Your task to perform on an android device: Go to CNN.com Image 0: 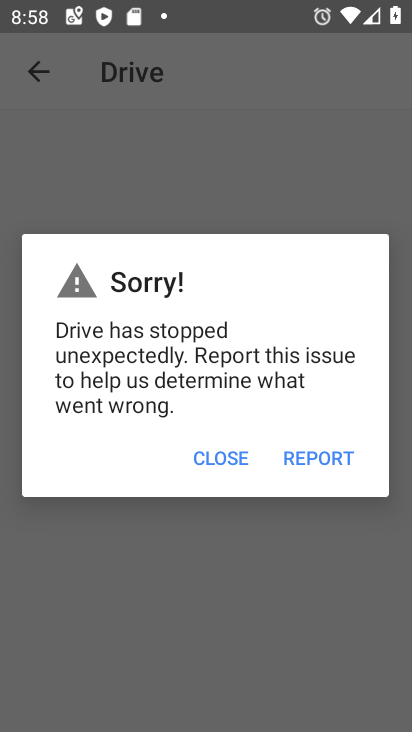
Step 0: press home button
Your task to perform on an android device: Go to CNN.com Image 1: 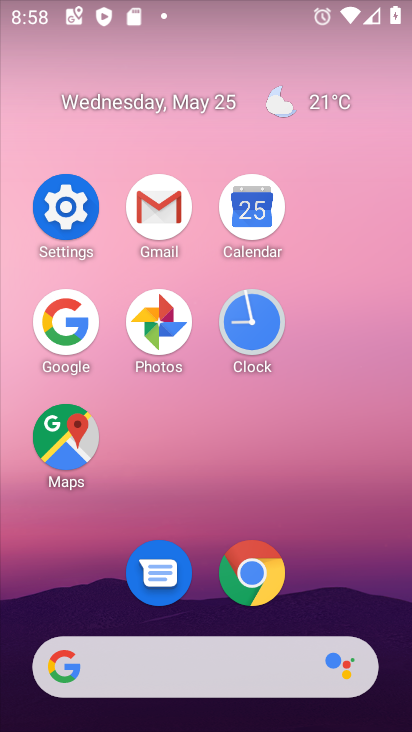
Step 1: click (234, 580)
Your task to perform on an android device: Go to CNN.com Image 2: 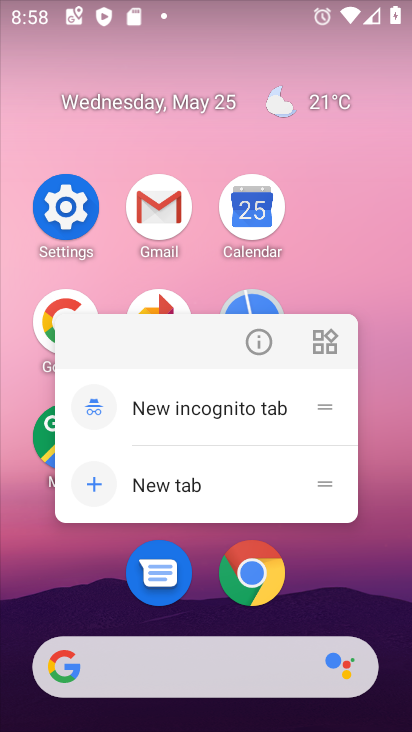
Step 2: click (236, 580)
Your task to perform on an android device: Go to CNN.com Image 3: 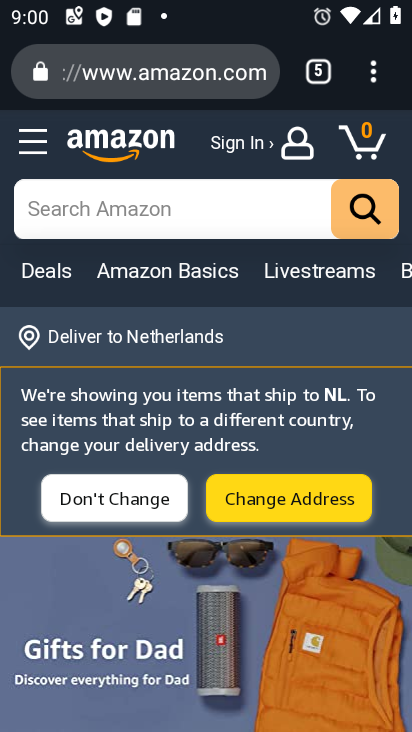
Step 3: click (307, 74)
Your task to perform on an android device: Go to CNN.com Image 4: 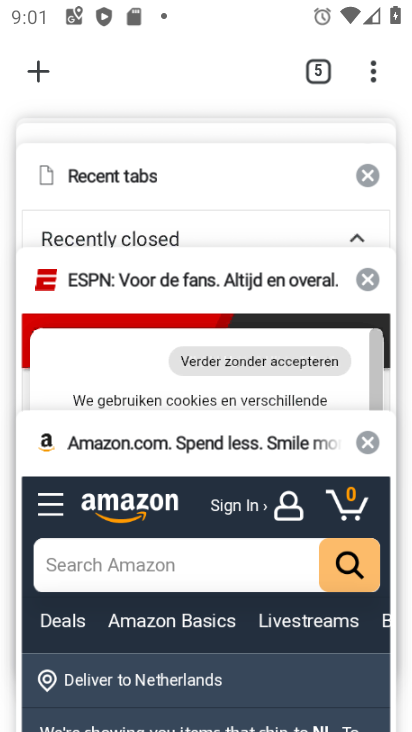
Step 4: drag from (148, 649) to (132, 327)
Your task to perform on an android device: Go to CNN.com Image 5: 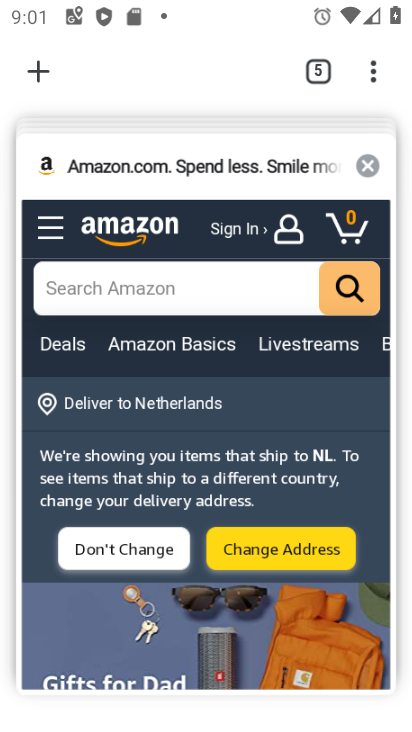
Step 5: drag from (173, 250) to (158, 638)
Your task to perform on an android device: Go to CNN.com Image 6: 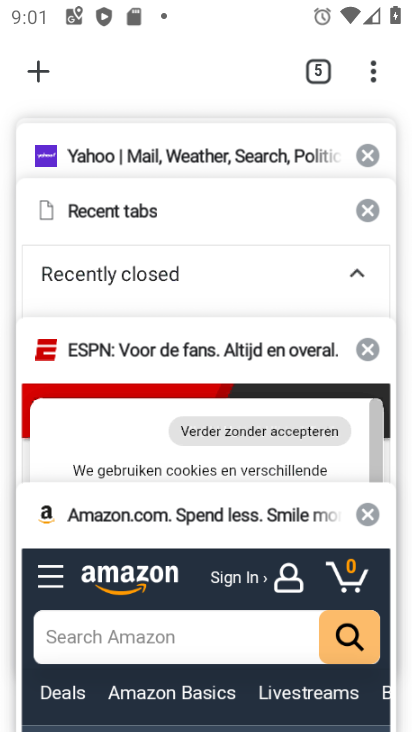
Step 6: drag from (177, 248) to (174, 594)
Your task to perform on an android device: Go to CNN.com Image 7: 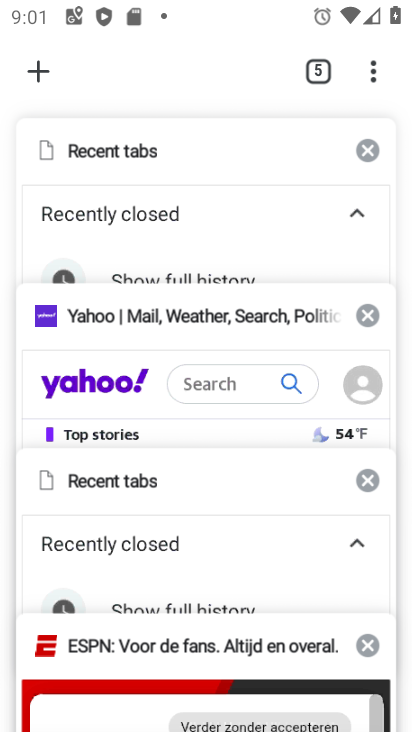
Step 7: drag from (124, 142) to (148, 543)
Your task to perform on an android device: Go to CNN.com Image 8: 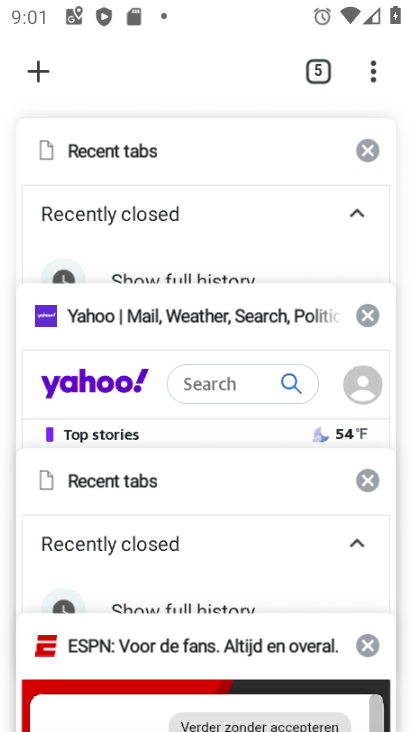
Step 8: click (61, 75)
Your task to perform on an android device: Go to CNN.com Image 9: 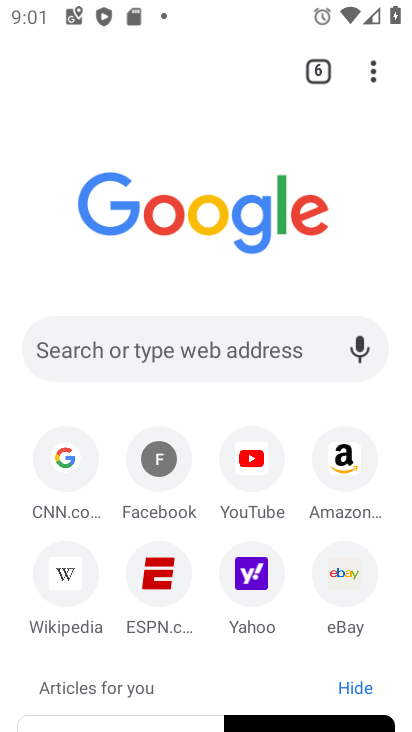
Step 9: click (77, 458)
Your task to perform on an android device: Go to CNN.com Image 10: 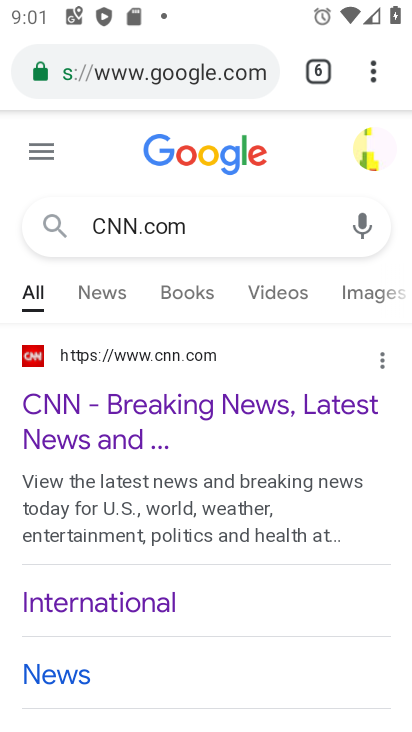
Step 10: click (168, 405)
Your task to perform on an android device: Go to CNN.com Image 11: 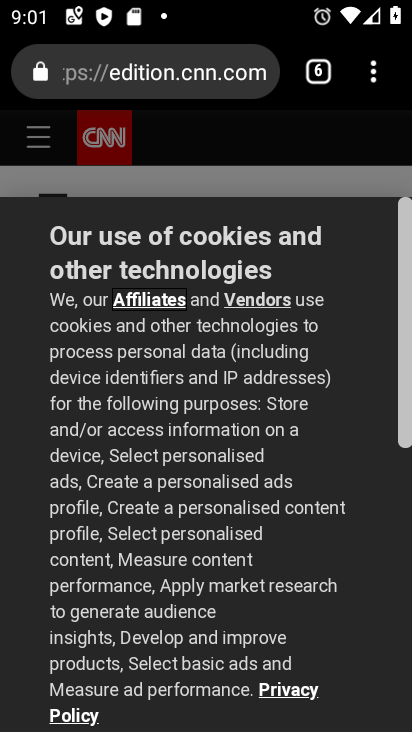
Step 11: task complete